Your task to perform on an android device: What's the weather? Image 0: 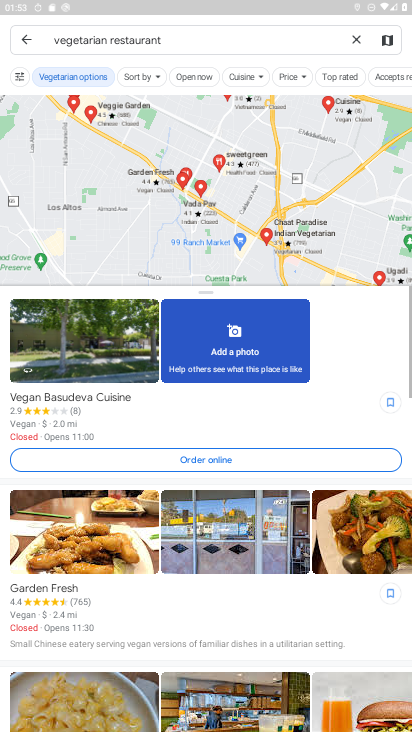
Step 0: press home button
Your task to perform on an android device: What's the weather? Image 1: 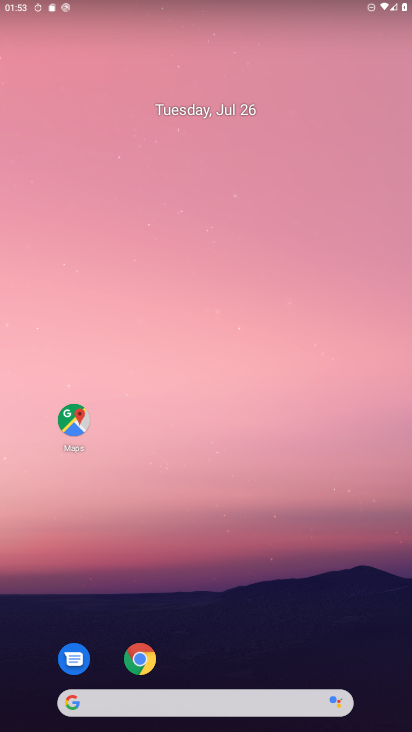
Step 1: click (172, 700)
Your task to perform on an android device: What's the weather? Image 2: 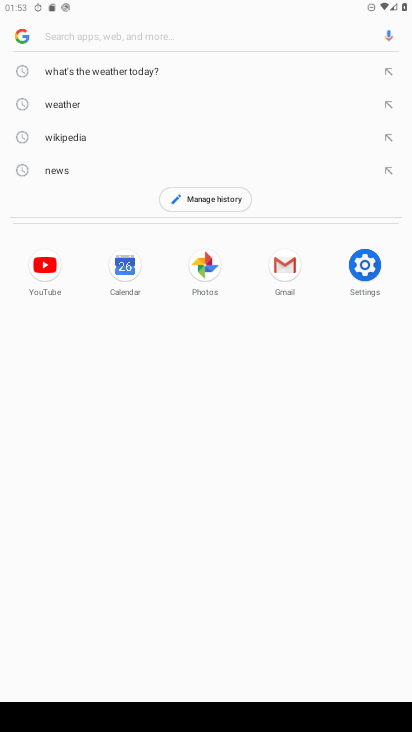
Step 2: type ""
Your task to perform on an android device: What's the weather? Image 3: 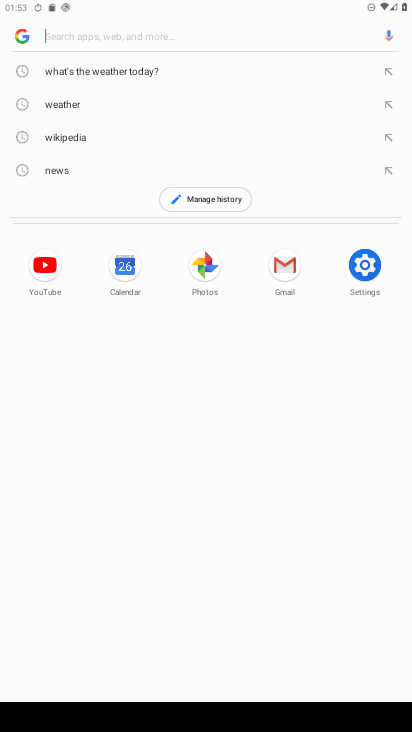
Step 3: type "What's the weather?"
Your task to perform on an android device: What's the weather? Image 4: 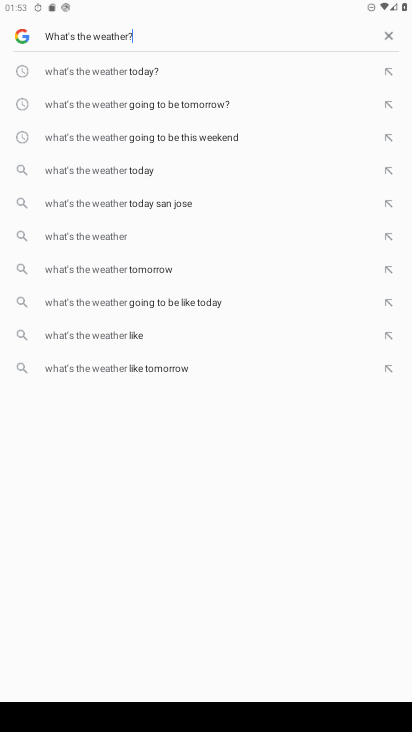
Step 4: type ""
Your task to perform on an android device: What's the weather? Image 5: 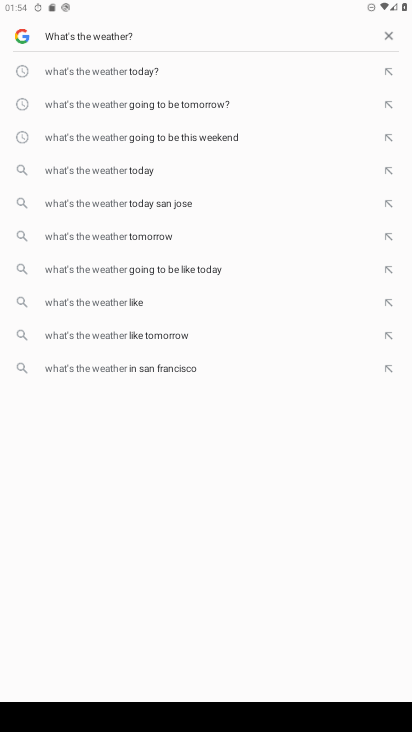
Step 5: type ""
Your task to perform on an android device: What's the weather? Image 6: 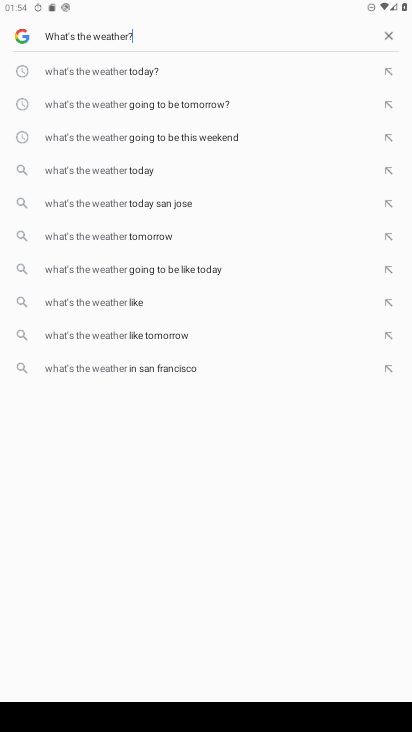
Step 6: type ""
Your task to perform on an android device: What's the weather? Image 7: 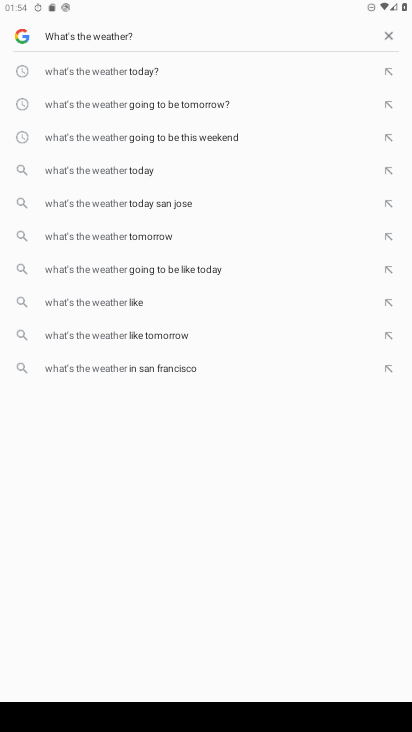
Step 7: task complete